Your task to perform on an android device: change timer sound Image 0: 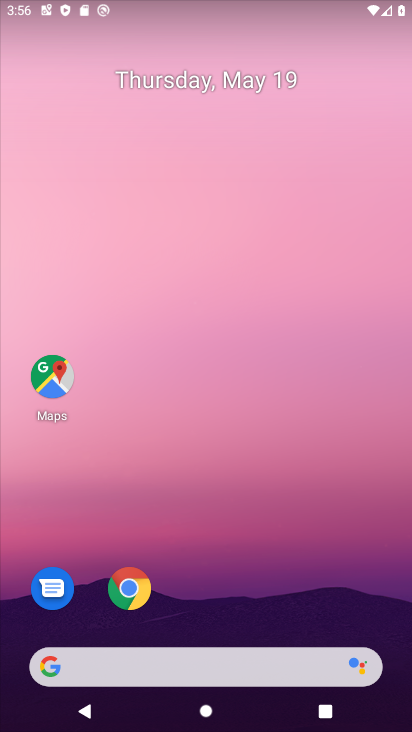
Step 0: drag from (282, 616) to (390, 267)
Your task to perform on an android device: change timer sound Image 1: 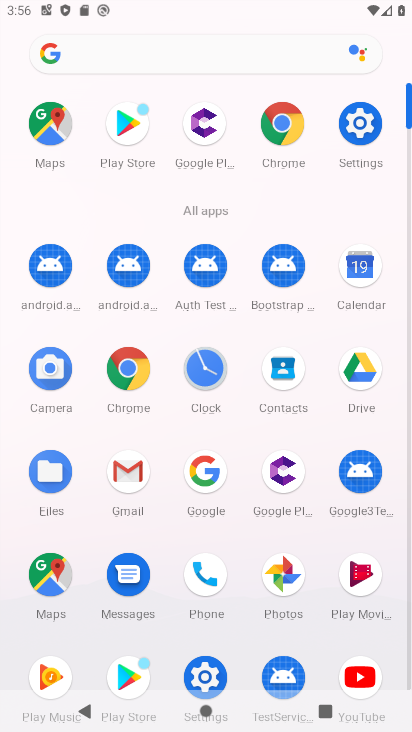
Step 1: click (359, 142)
Your task to perform on an android device: change timer sound Image 2: 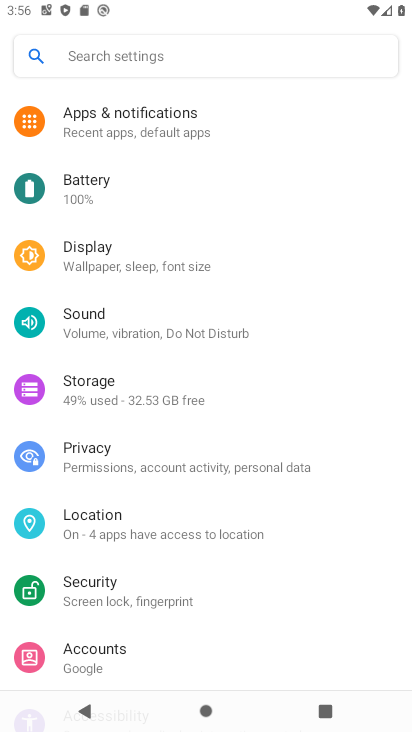
Step 2: click (186, 329)
Your task to perform on an android device: change timer sound Image 3: 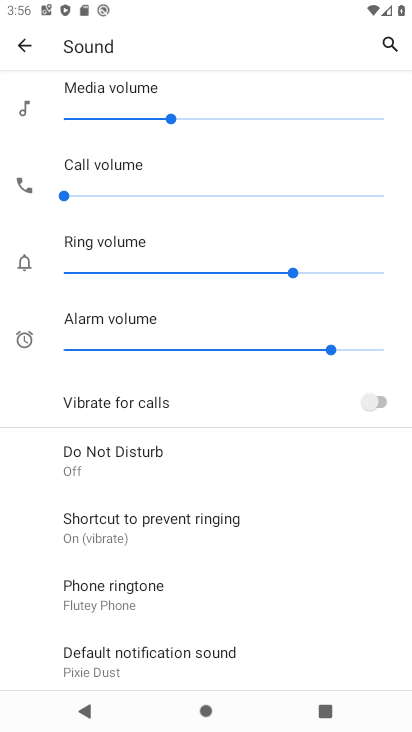
Step 3: task complete